Your task to perform on an android device: Show me recent news Image 0: 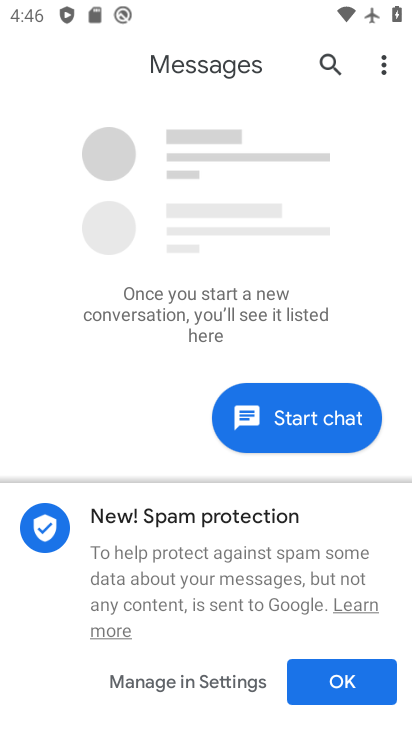
Step 0: press home button
Your task to perform on an android device: Show me recent news Image 1: 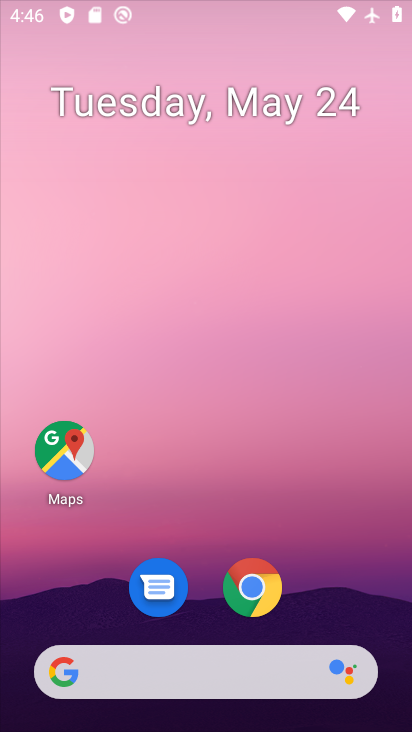
Step 1: drag from (339, 540) to (231, 40)
Your task to perform on an android device: Show me recent news Image 2: 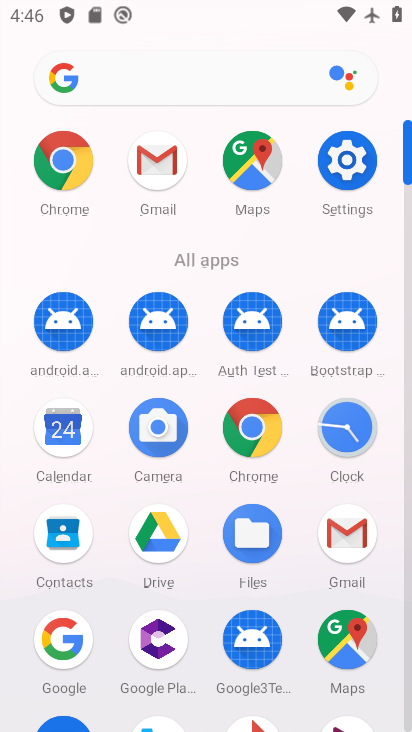
Step 2: click (75, 654)
Your task to perform on an android device: Show me recent news Image 3: 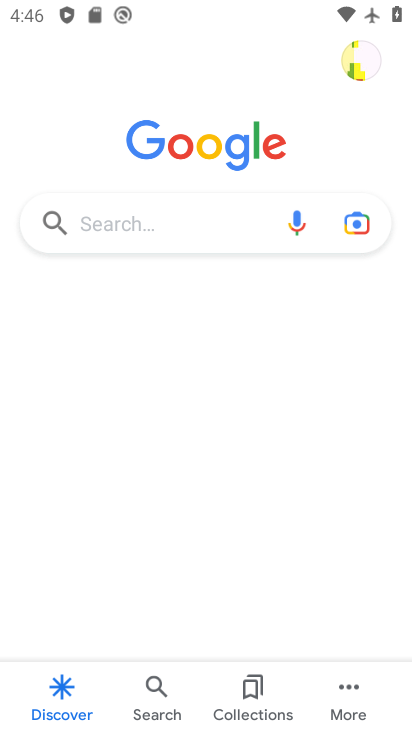
Step 3: click (154, 225)
Your task to perform on an android device: Show me recent news Image 4: 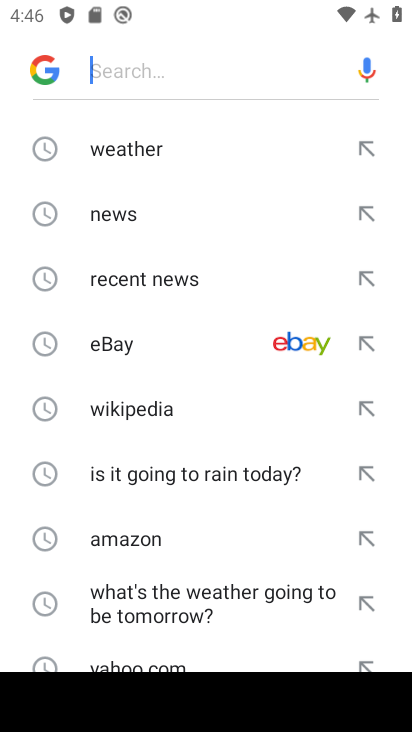
Step 4: click (188, 284)
Your task to perform on an android device: Show me recent news Image 5: 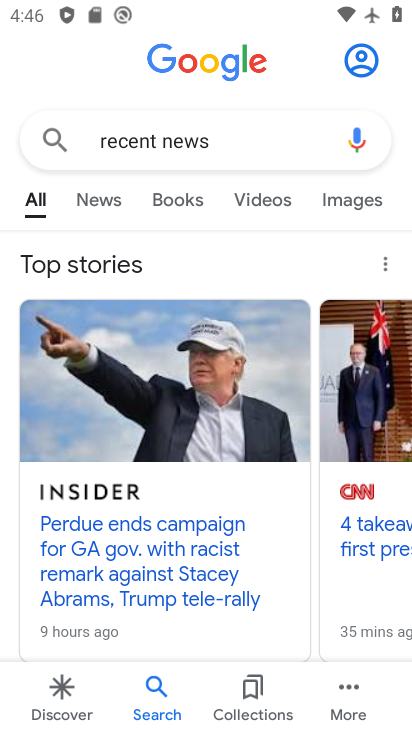
Step 5: task complete